Your task to perform on an android device: Go to display settings Image 0: 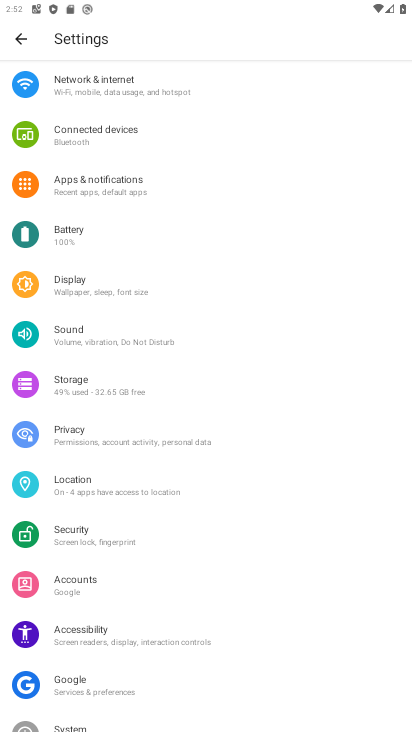
Step 0: click (84, 285)
Your task to perform on an android device: Go to display settings Image 1: 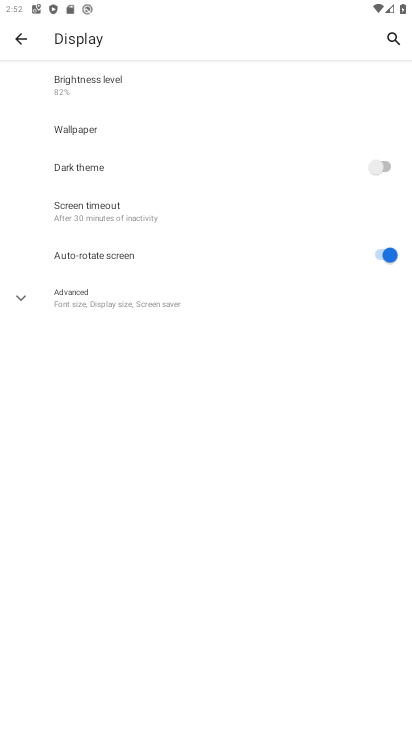
Step 1: click (106, 290)
Your task to perform on an android device: Go to display settings Image 2: 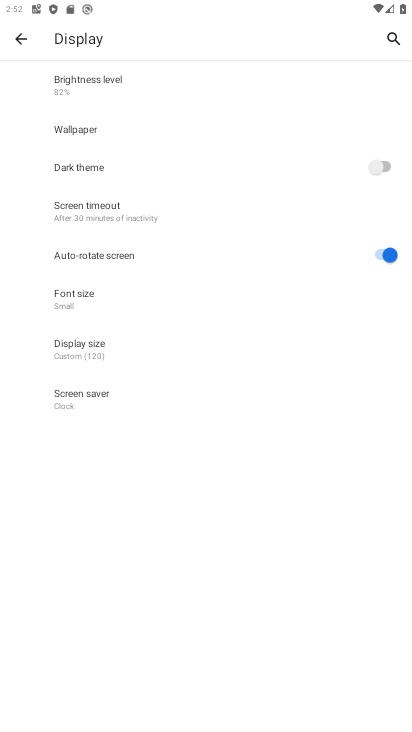
Step 2: task complete